Your task to perform on an android device: turn off notifications in google photos Image 0: 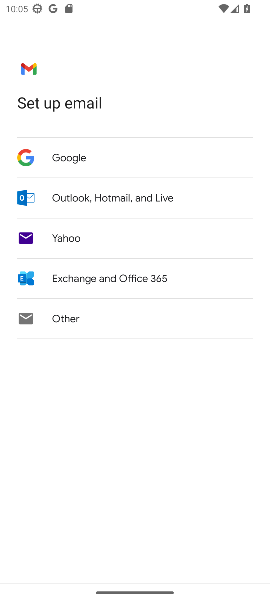
Step 0: press home button
Your task to perform on an android device: turn off notifications in google photos Image 1: 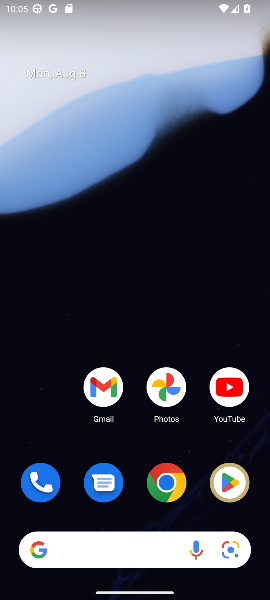
Step 1: click (167, 387)
Your task to perform on an android device: turn off notifications in google photos Image 2: 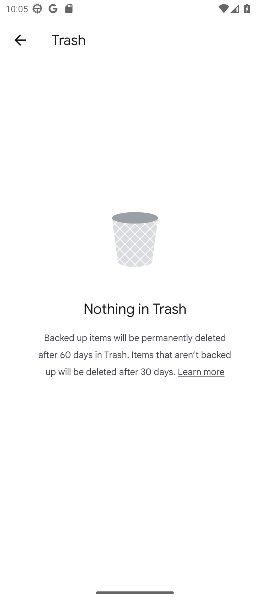
Step 2: click (19, 43)
Your task to perform on an android device: turn off notifications in google photos Image 3: 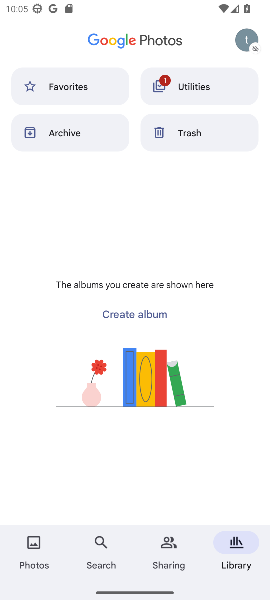
Step 3: click (247, 32)
Your task to perform on an android device: turn off notifications in google photos Image 4: 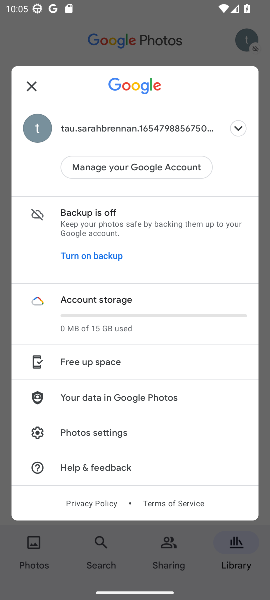
Step 4: click (74, 424)
Your task to perform on an android device: turn off notifications in google photos Image 5: 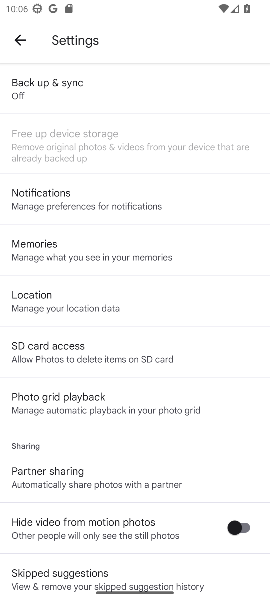
Step 5: click (90, 197)
Your task to perform on an android device: turn off notifications in google photos Image 6: 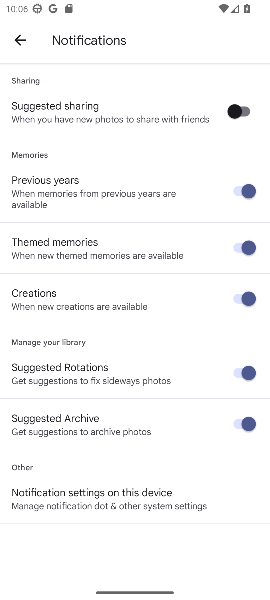
Step 6: click (119, 491)
Your task to perform on an android device: turn off notifications in google photos Image 7: 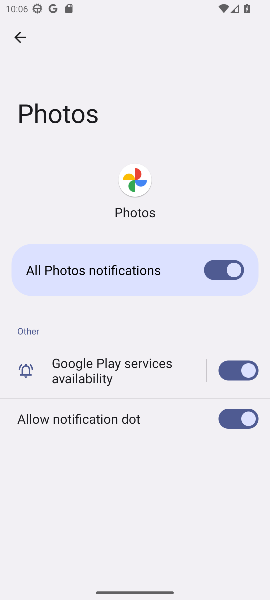
Step 7: click (224, 272)
Your task to perform on an android device: turn off notifications in google photos Image 8: 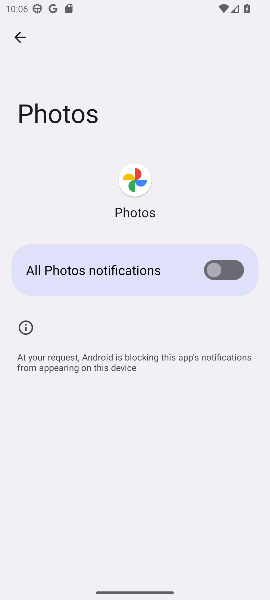
Step 8: task complete